Your task to perform on an android device: Check the weather Image 0: 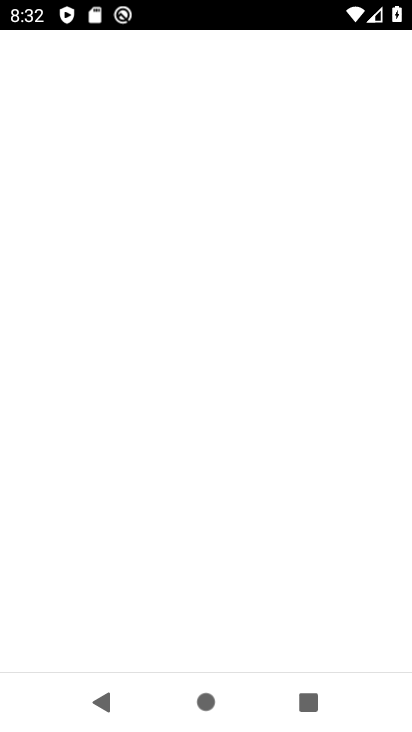
Step 0: drag from (359, 557) to (407, 575)
Your task to perform on an android device: Check the weather Image 1: 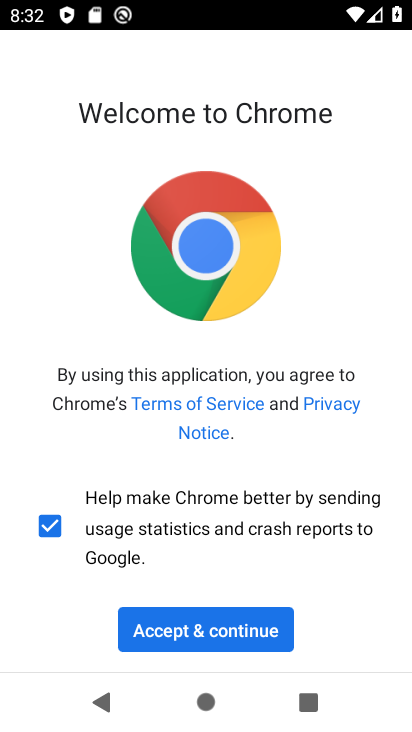
Step 1: click (230, 635)
Your task to perform on an android device: Check the weather Image 2: 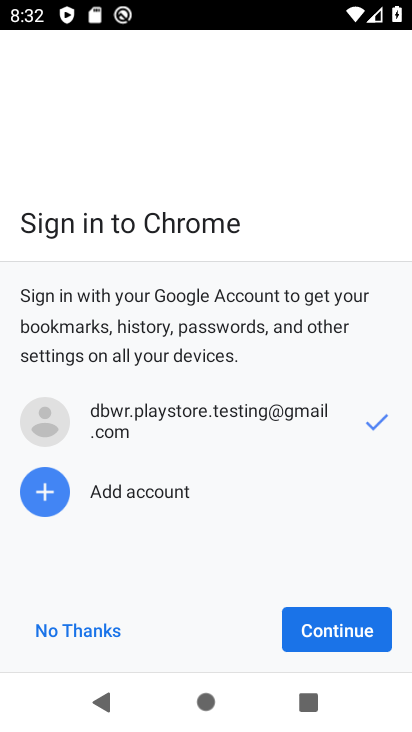
Step 2: click (327, 646)
Your task to perform on an android device: Check the weather Image 3: 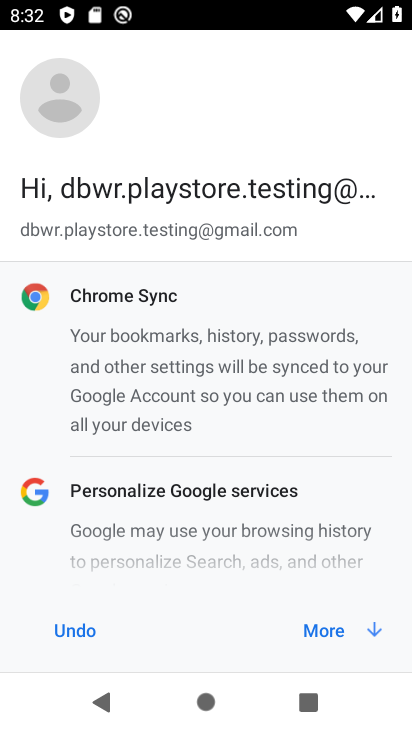
Step 3: click (323, 637)
Your task to perform on an android device: Check the weather Image 4: 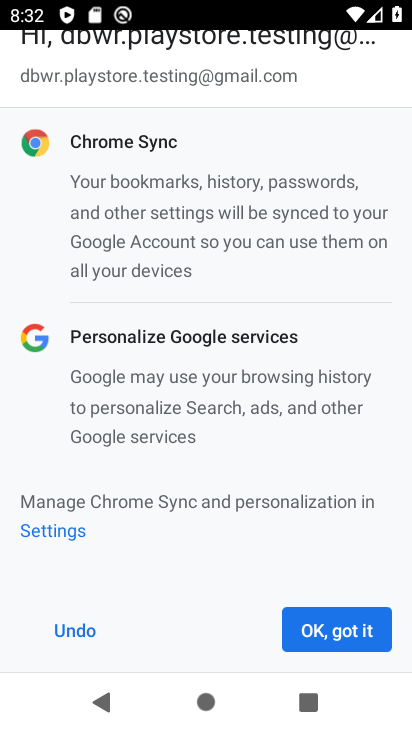
Step 4: click (323, 636)
Your task to perform on an android device: Check the weather Image 5: 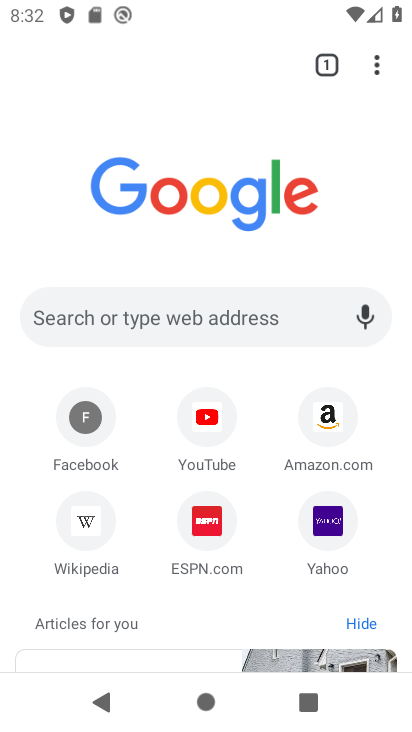
Step 5: click (257, 322)
Your task to perform on an android device: Check the weather Image 6: 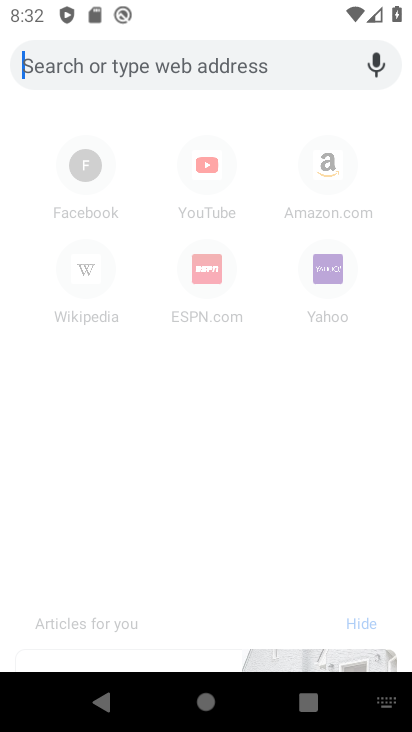
Step 6: type "check the weather"
Your task to perform on an android device: Check the weather Image 7: 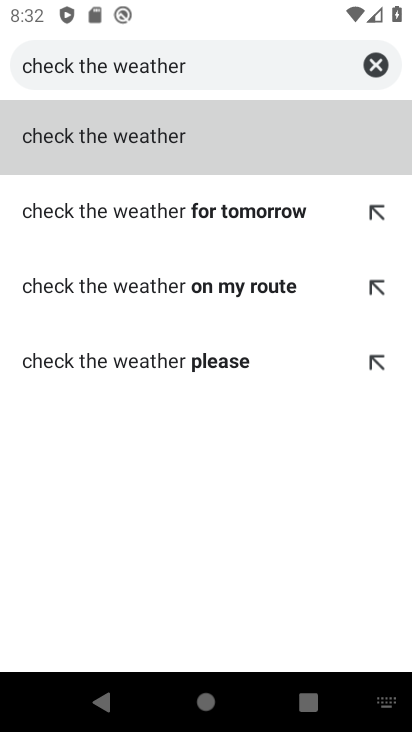
Step 7: click (123, 133)
Your task to perform on an android device: Check the weather Image 8: 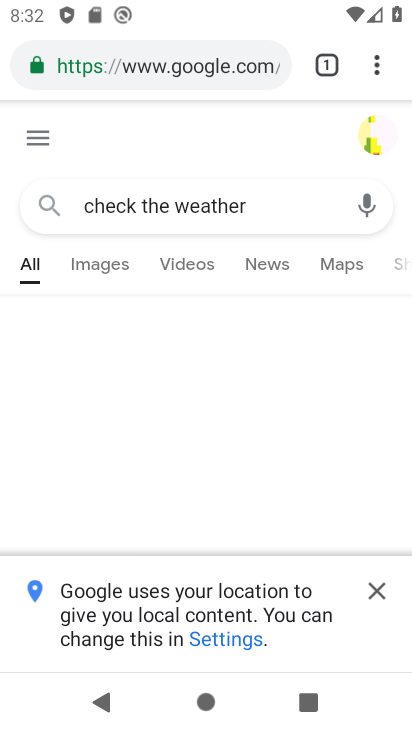
Step 8: click (379, 590)
Your task to perform on an android device: Check the weather Image 9: 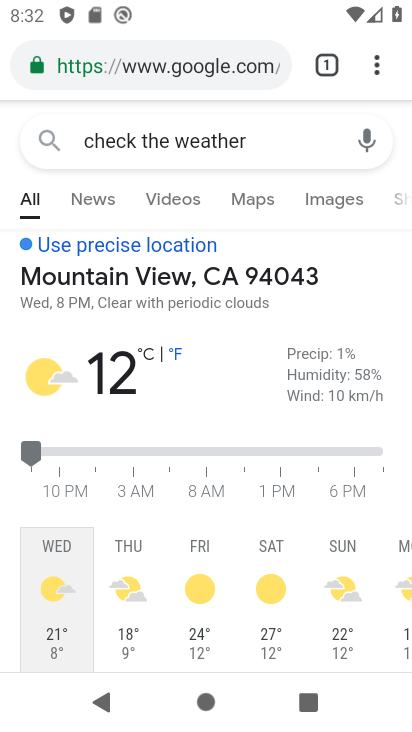
Step 9: task complete